Your task to perform on an android device: Show me popular videos on Youtube Image 0: 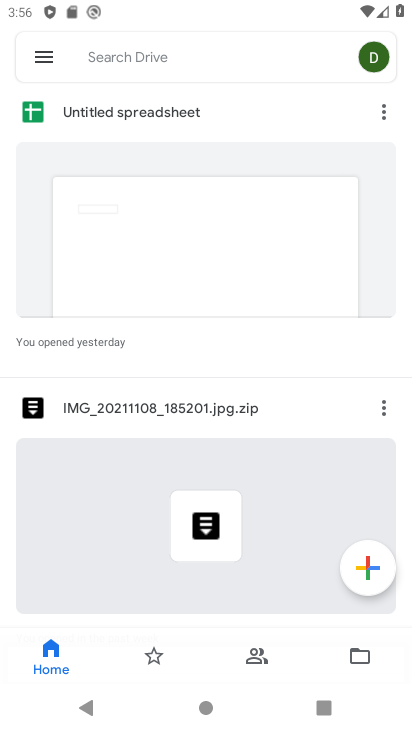
Step 0: press home button
Your task to perform on an android device: Show me popular videos on Youtube Image 1: 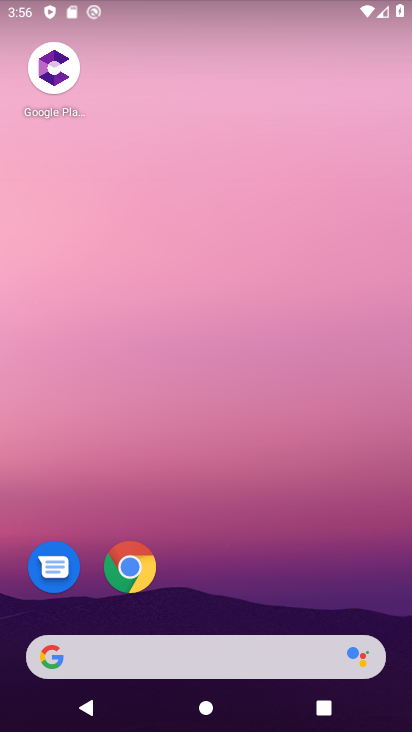
Step 1: drag from (284, 574) to (326, 63)
Your task to perform on an android device: Show me popular videos on Youtube Image 2: 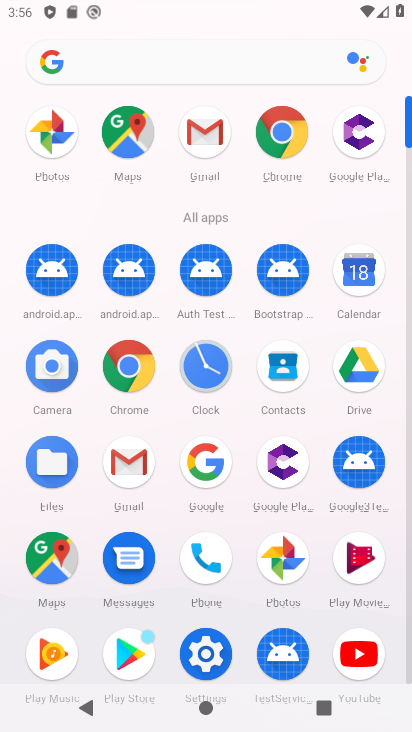
Step 2: drag from (306, 694) to (347, 102)
Your task to perform on an android device: Show me popular videos on Youtube Image 3: 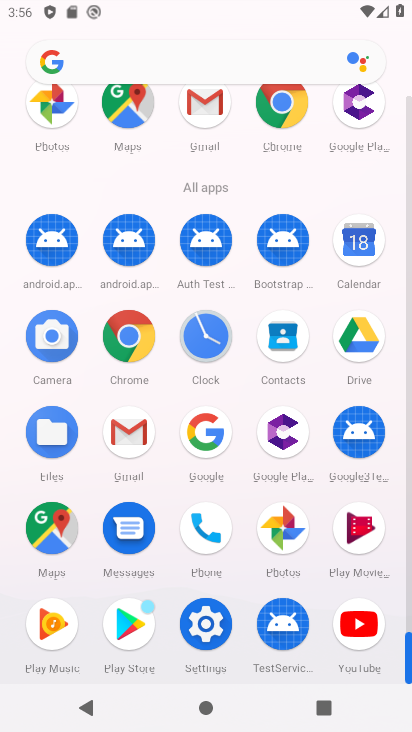
Step 3: click (350, 601)
Your task to perform on an android device: Show me popular videos on Youtube Image 4: 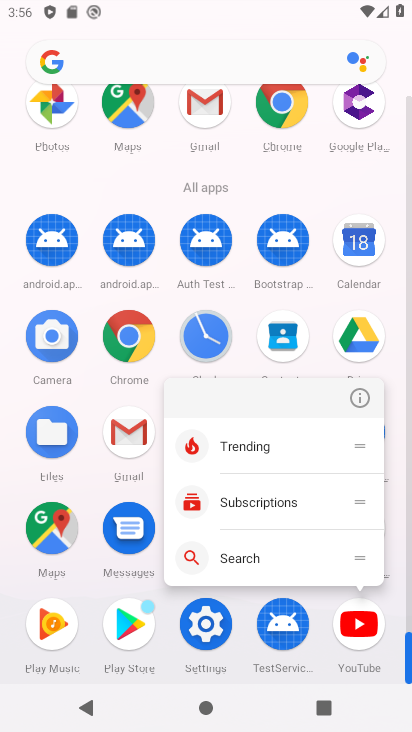
Step 4: click (353, 609)
Your task to perform on an android device: Show me popular videos on Youtube Image 5: 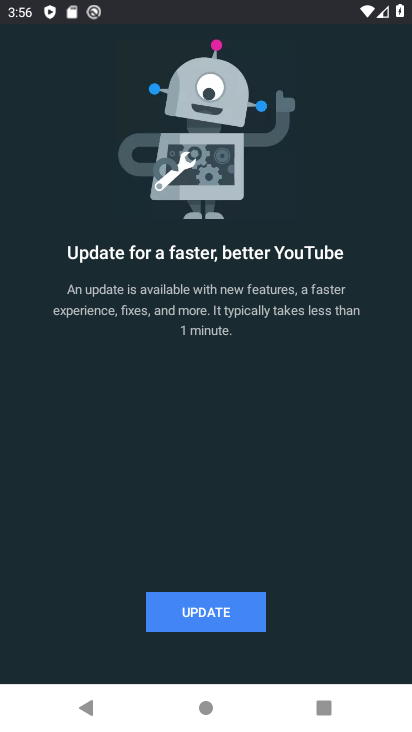
Step 5: click (249, 611)
Your task to perform on an android device: Show me popular videos on Youtube Image 6: 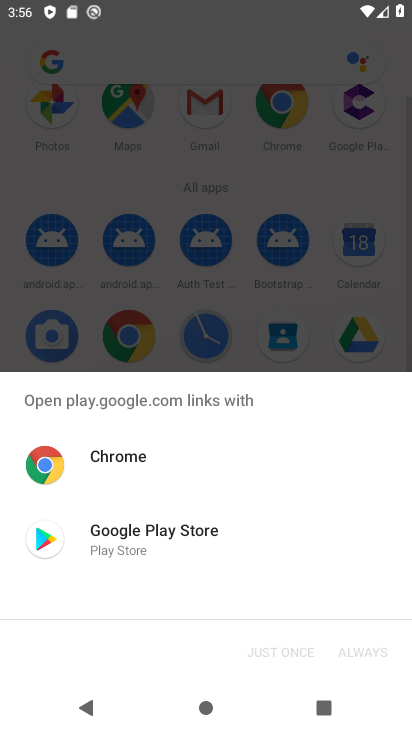
Step 6: click (174, 533)
Your task to perform on an android device: Show me popular videos on Youtube Image 7: 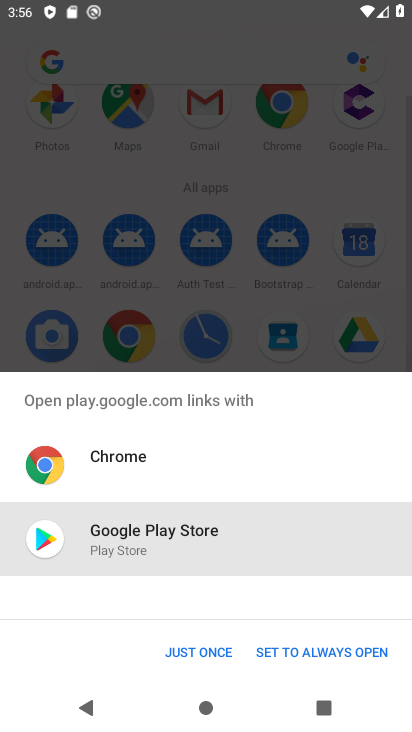
Step 7: click (210, 648)
Your task to perform on an android device: Show me popular videos on Youtube Image 8: 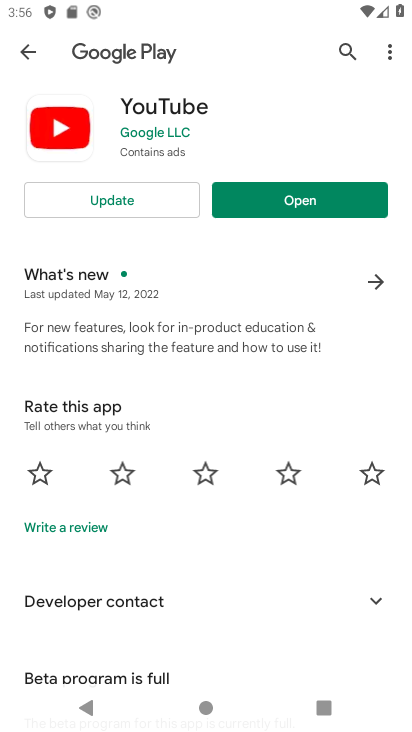
Step 8: click (139, 196)
Your task to perform on an android device: Show me popular videos on Youtube Image 9: 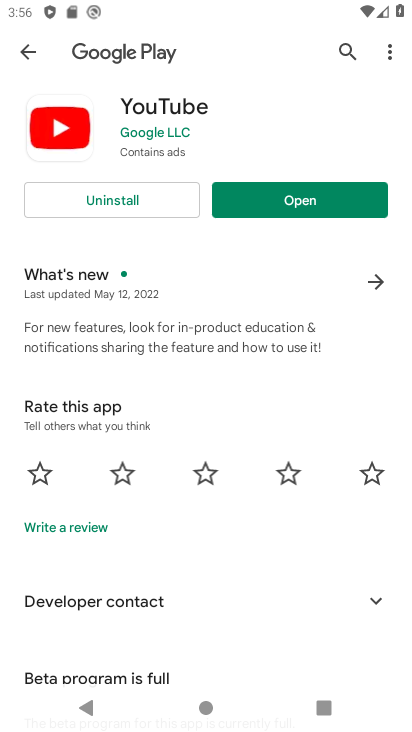
Step 9: click (269, 194)
Your task to perform on an android device: Show me popular videos on Youtube Image 10: 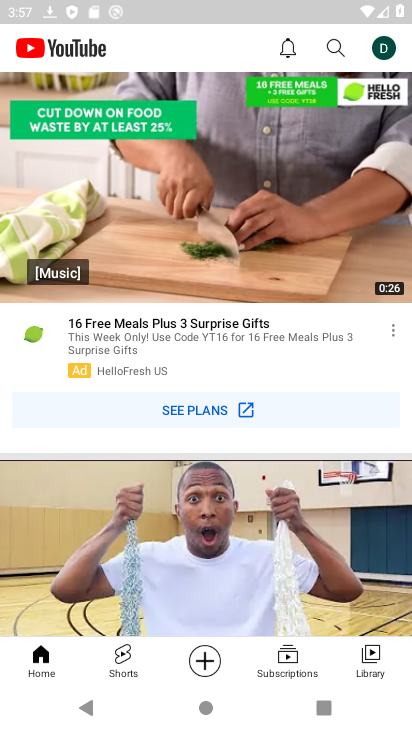
Step 10: click (336, 41)
Your task to perform on an android device: Show me popular videos on Youtube Image 11: 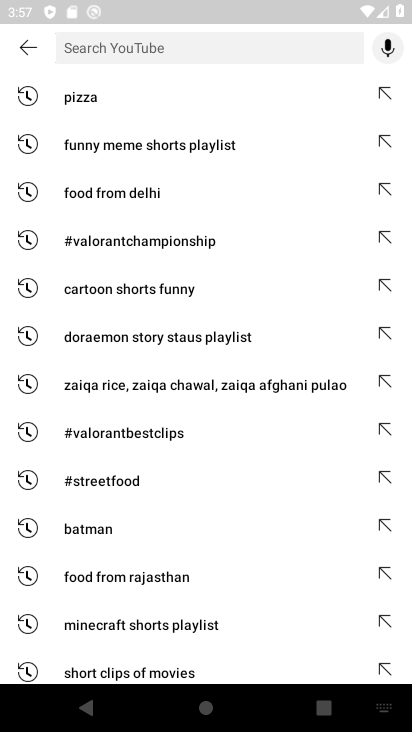
Step 11: type " popular videos "
Your task to perform on an android device: Show me popular videos on Youtube Image 12: 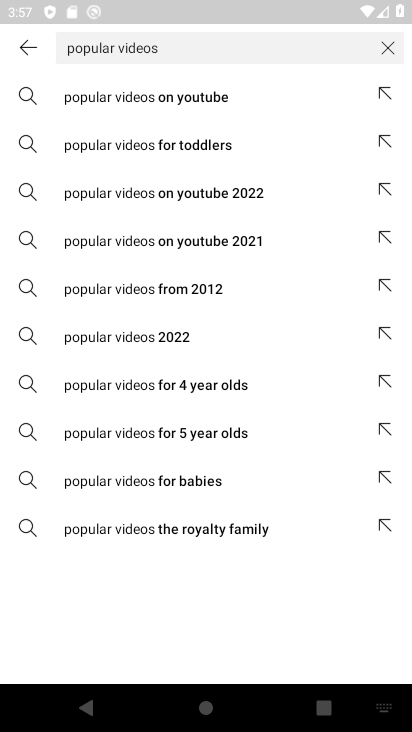
Step 12: click (123, 100)
Your task to perform on an android device: Show me popular videos on Youtube Image 13: 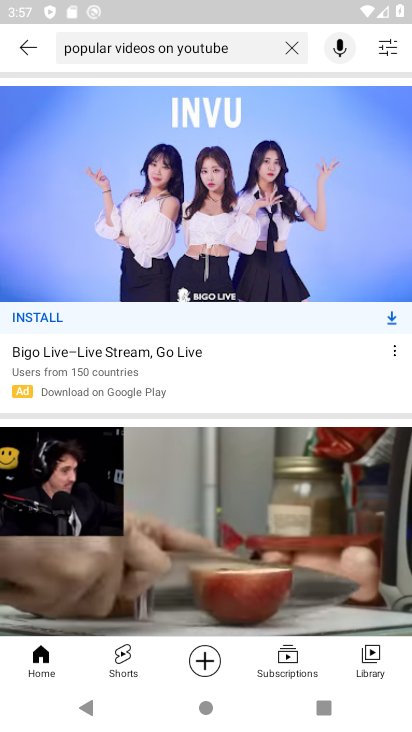
Step 13: task complete